Your task to perform on an android device: turn pop-ups off in chrome Image 0: 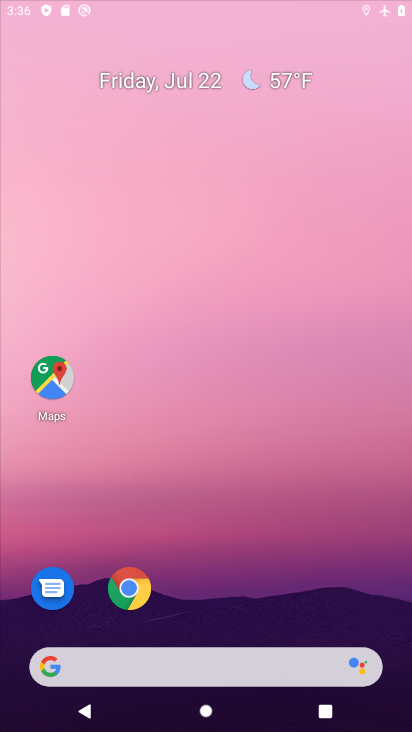
Step 0: click (184, 12)
Your task to perform on an android device: turn pop-ups off in chrome Image 1: 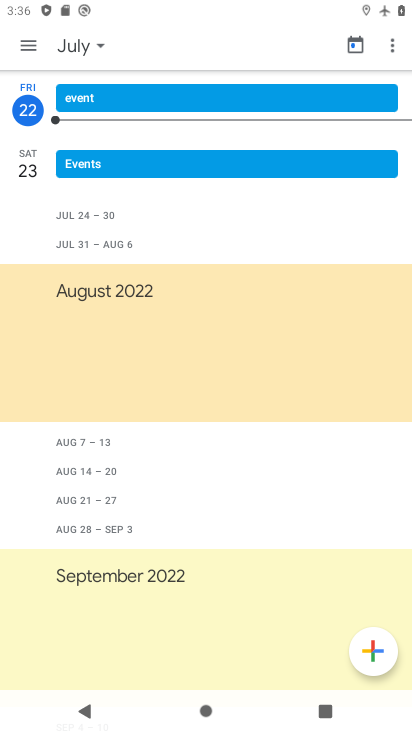
Step 1: press back button
Your task to perform on an android device: turn pop-ups off in chrome Image 2: 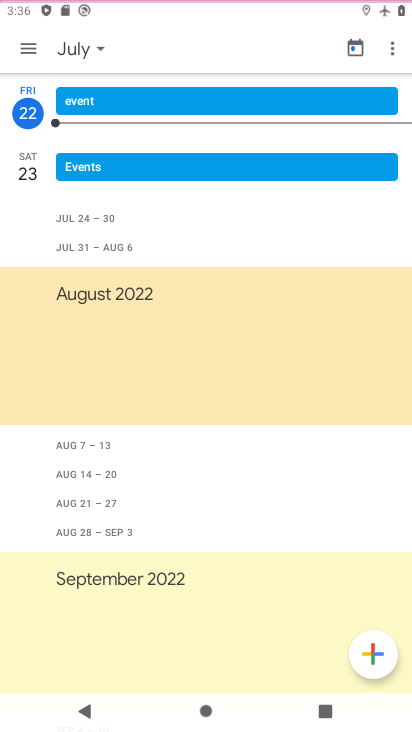
Step 2: press home button
Your task to perform on an android device: turn pop-ups off in chrome Image 3: 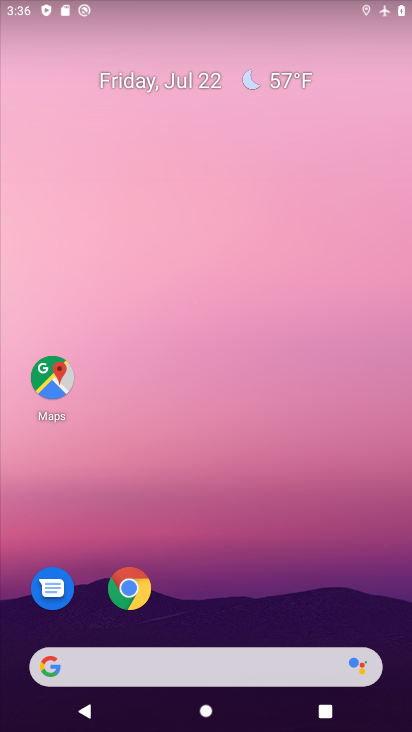
Step 3: click (138, 582)
Your task to perform on an android device: turn pop-ups off in chrome Image 4: 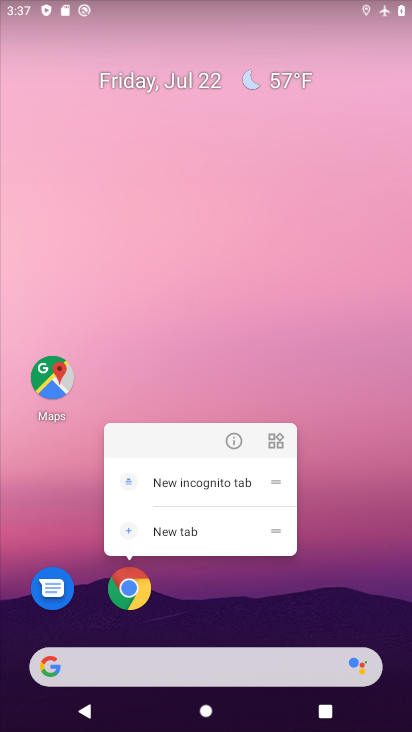
Step 4: click (130, 606)
Your task to perform on an android device: turn pop-ups off in chrome Image 5: 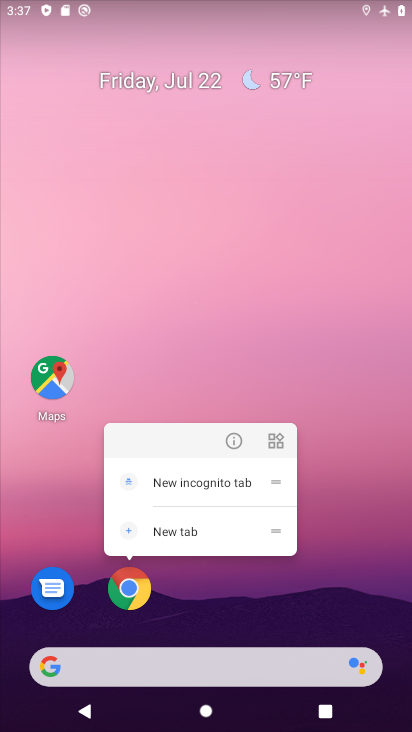
Step 5: click (130, 606)
Your task to perform on an android device: turn pop-ups off in chrome Image 6: 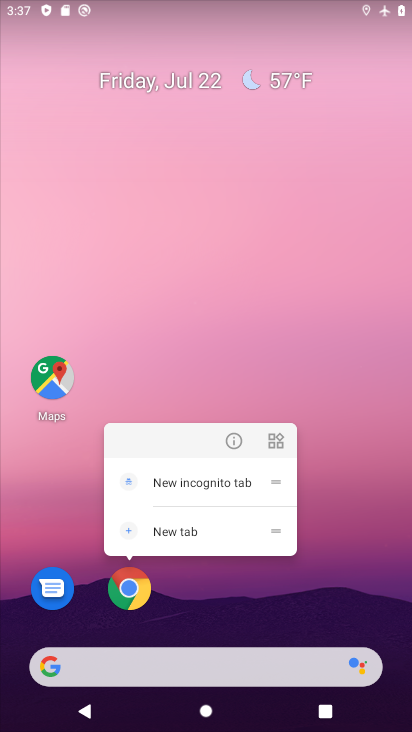
Step 6: click (130, 606)
Your task to perform on an android device: turn pop-ups off in chrome Image 7: 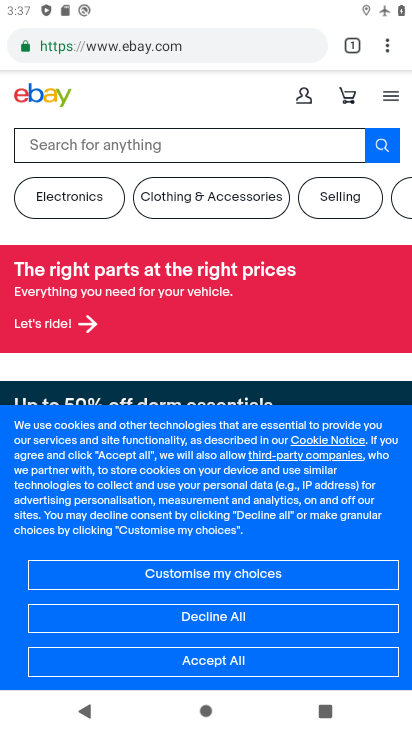
Step 7: drag from (388, 50) to (208, 507)
Your task to perform on an android device: turn pop-ups off in chrome Image 8: 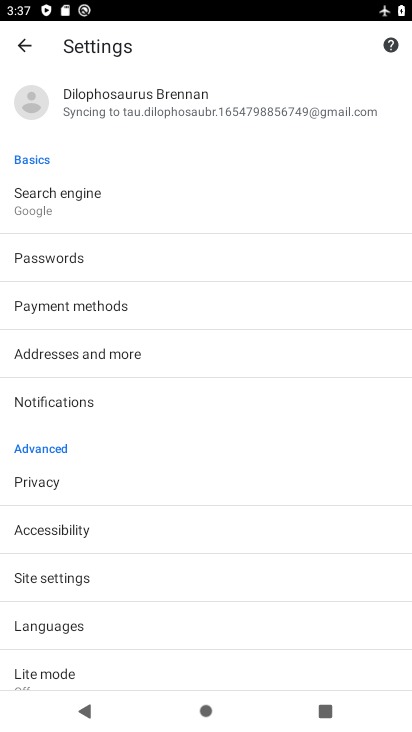
Step 8: click (91, 590)
Your task to perform on an android device: turn pop-ups off in chrome Image 9: 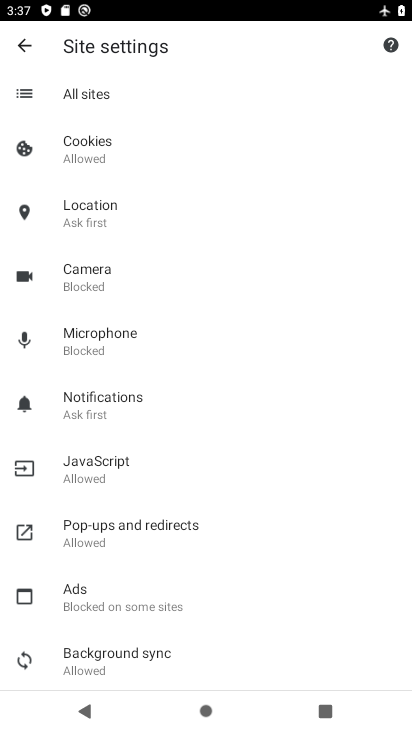
Step 9: click (114, 532)
Your task to perform on an android device: turn pop-ups off in chrome Image 10: 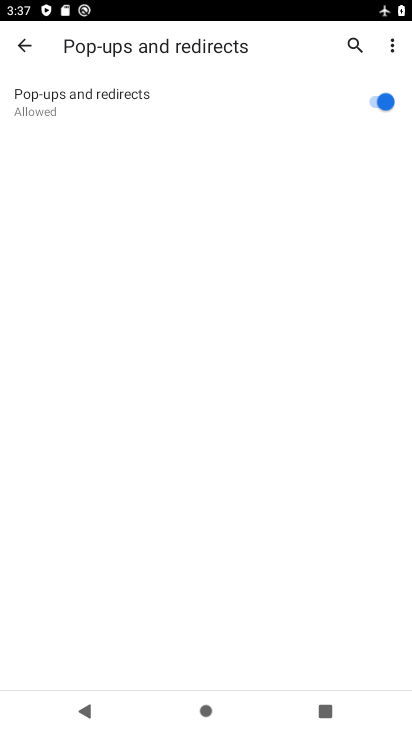
Step 10: click (383, 108)
Your task to perform on an android device: turn pop-ups off in chrome Image 11: 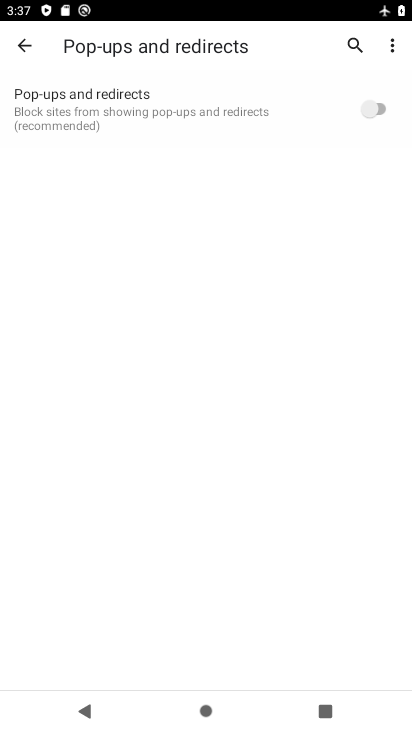
Step 11: task complete